Your task to perform on an android device: turn on location history Image 0: 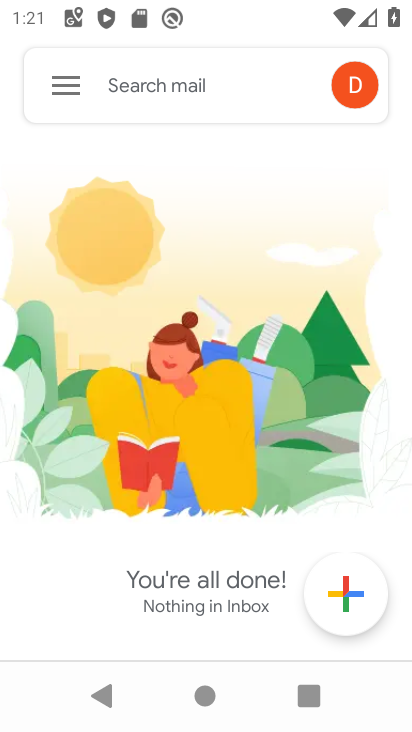
Step 0: press home button
Your task to perform on an android device: turn on location history Image 1: 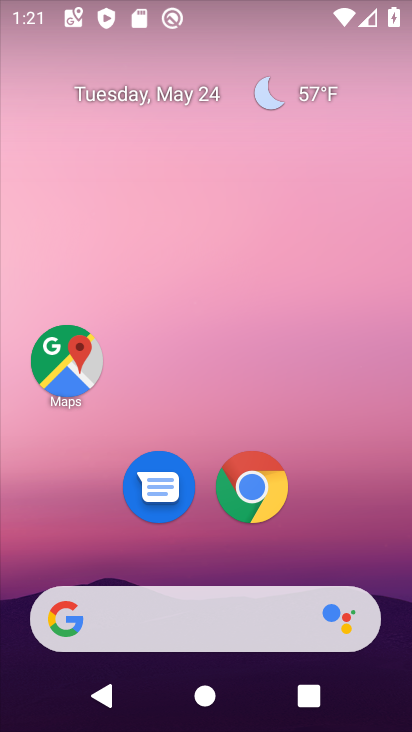
Step 1: drag from (224, 724) to (207, 150)
Your task to perform on an android device: turn on location history Image 2: 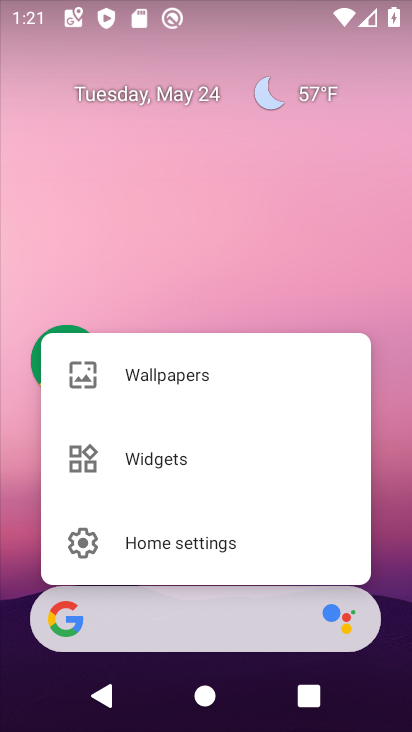
Step 2: click (277, 242)
Your task to perform on an android device: turn on location history Image 3: 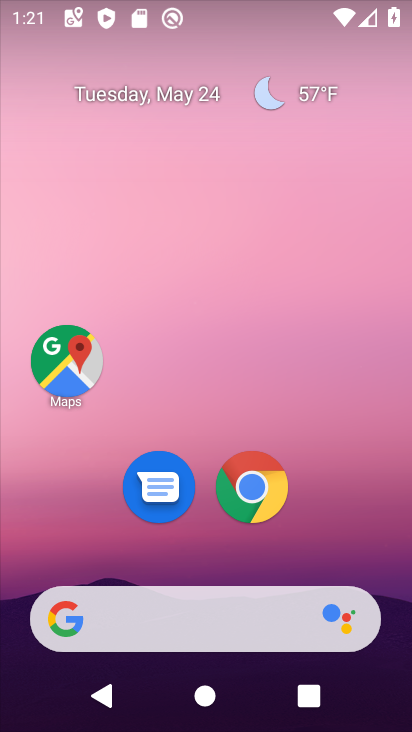
Step 3: drag from (228, 725) to (222, 179)
Your task to perform on an android device: turn on location history Image 4: 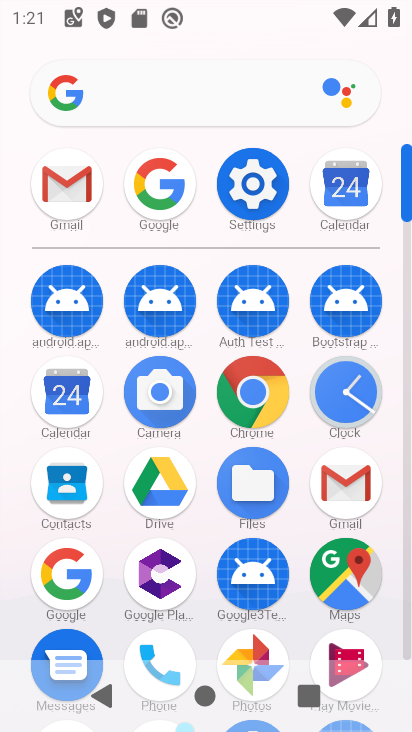
Step 4: click (249, 180)
Your task to perform on an android device: turn on location history Image 5: 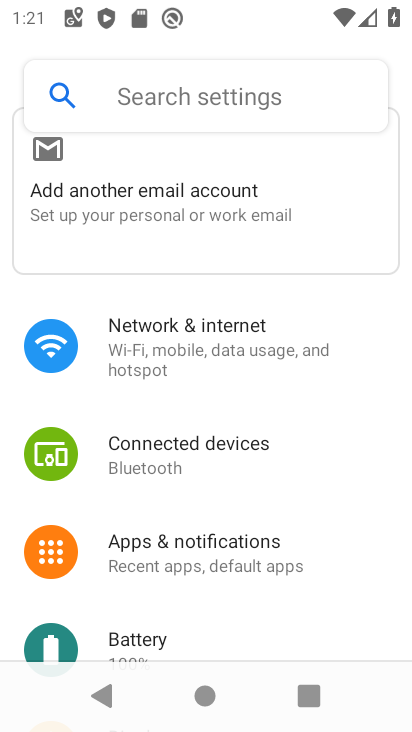
Step 5: drag from (192, 633) to (219, 281)
Your task to perform on an android device: turn on location history Image 6: 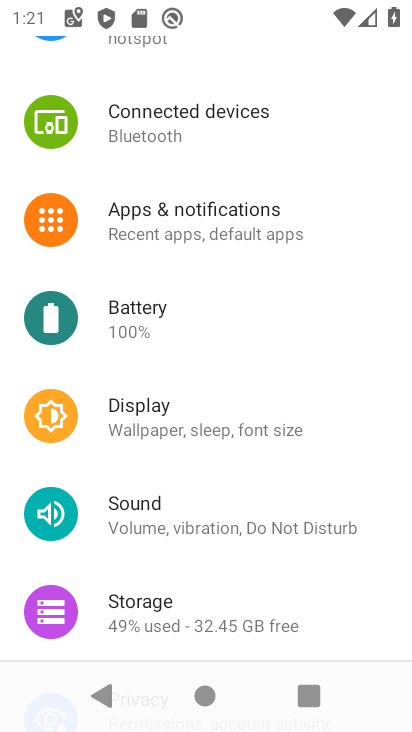
Step 6: drag from (184, 617) to (195, 288)
Your task to perform on an android device: turn on location history Image 7: 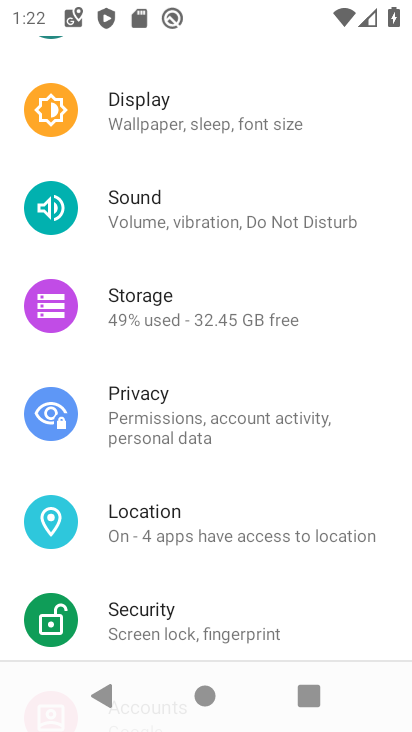
Step 7: click (149, 524)
Your task to perform on an android device: turn on location history Image 8: 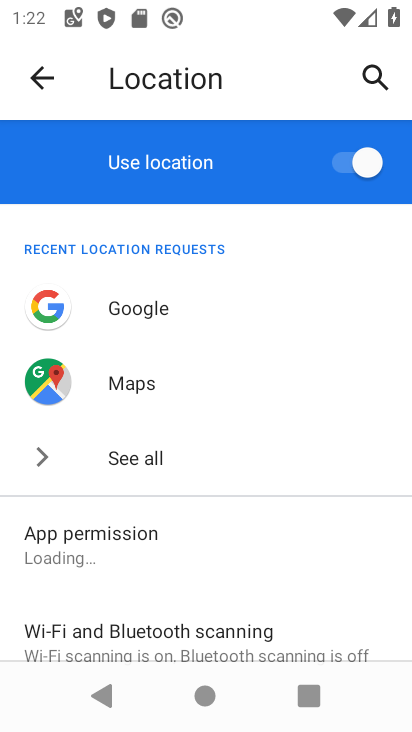
Step 8: drag from (165, 580) to (164, 319)
Your task to perform on an android device: turn on location history Image 9: 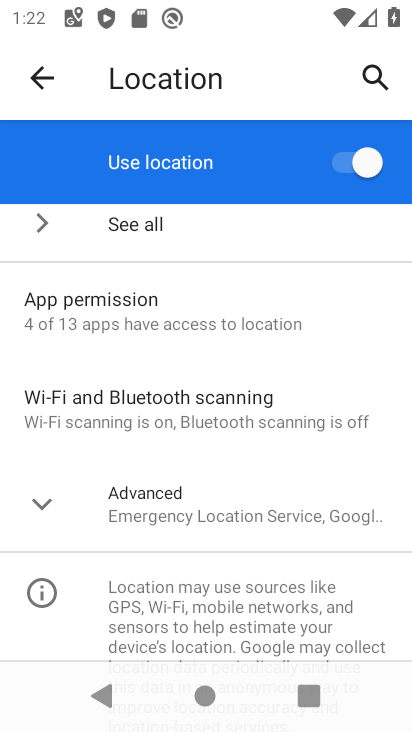
Step 9: click (156, 505)
Your task to perform on an android device: turn on location history Image 10: 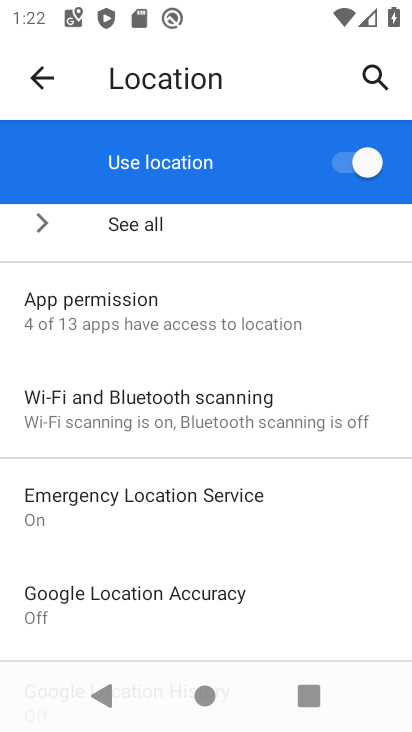
Step 10: drag from (192, 626) to (199, 352)
Your task to perform on an android device: turn on location history Image 11: 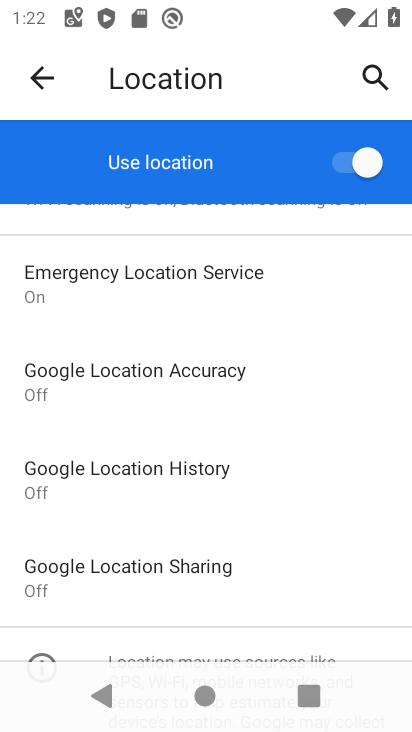
Step 11: click (141, 467)
Your task to perform on an android device: turn on location history Image 12: 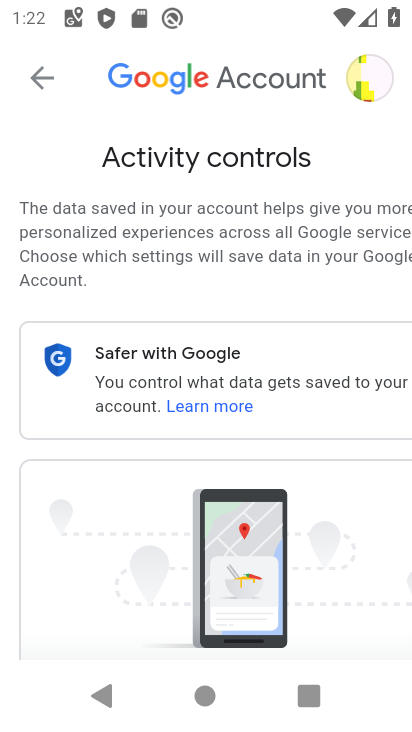
Step 12: task complete